Your task to perform on an android device: Add "duracell triple a" to the cart on ebay Image 0: 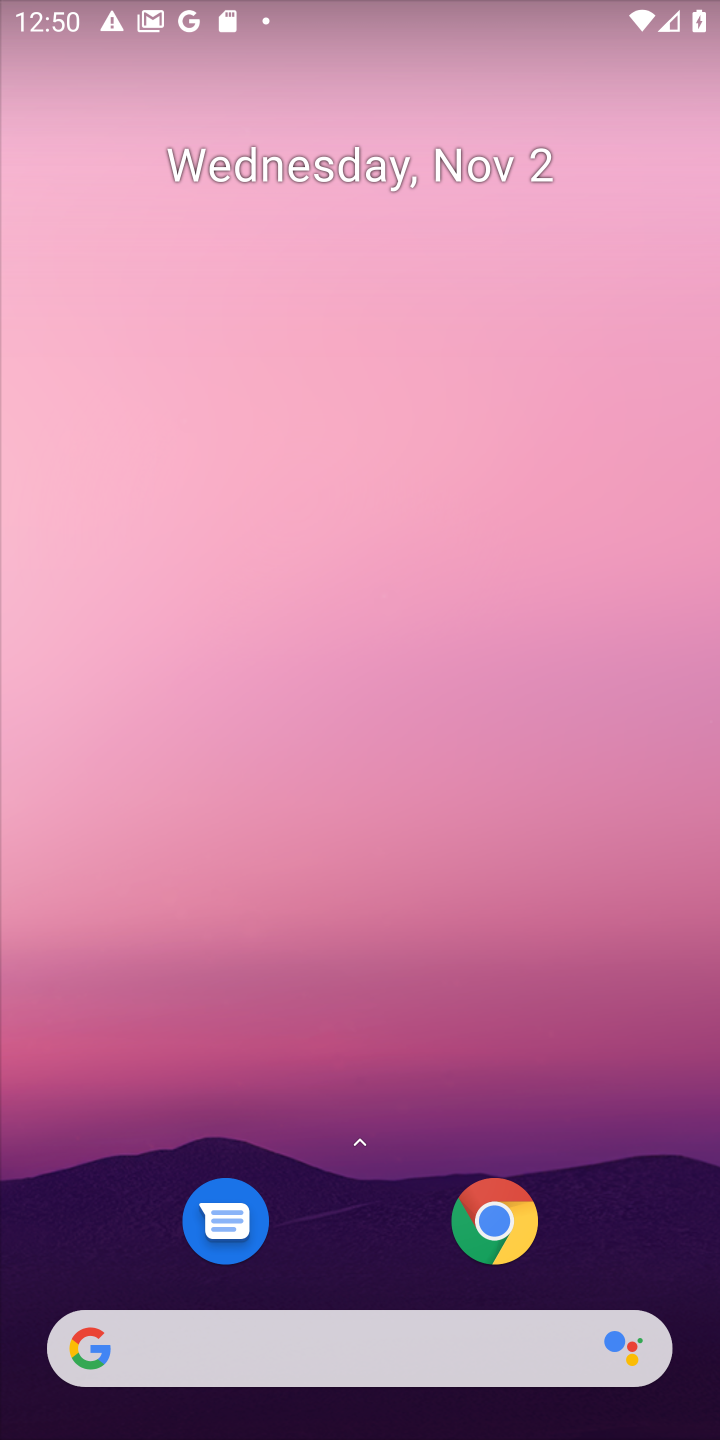
Step 0: click (500, 1243)
Your task to perform on an android device: Add "duracell triple a" to the cart on ebay Image 1: 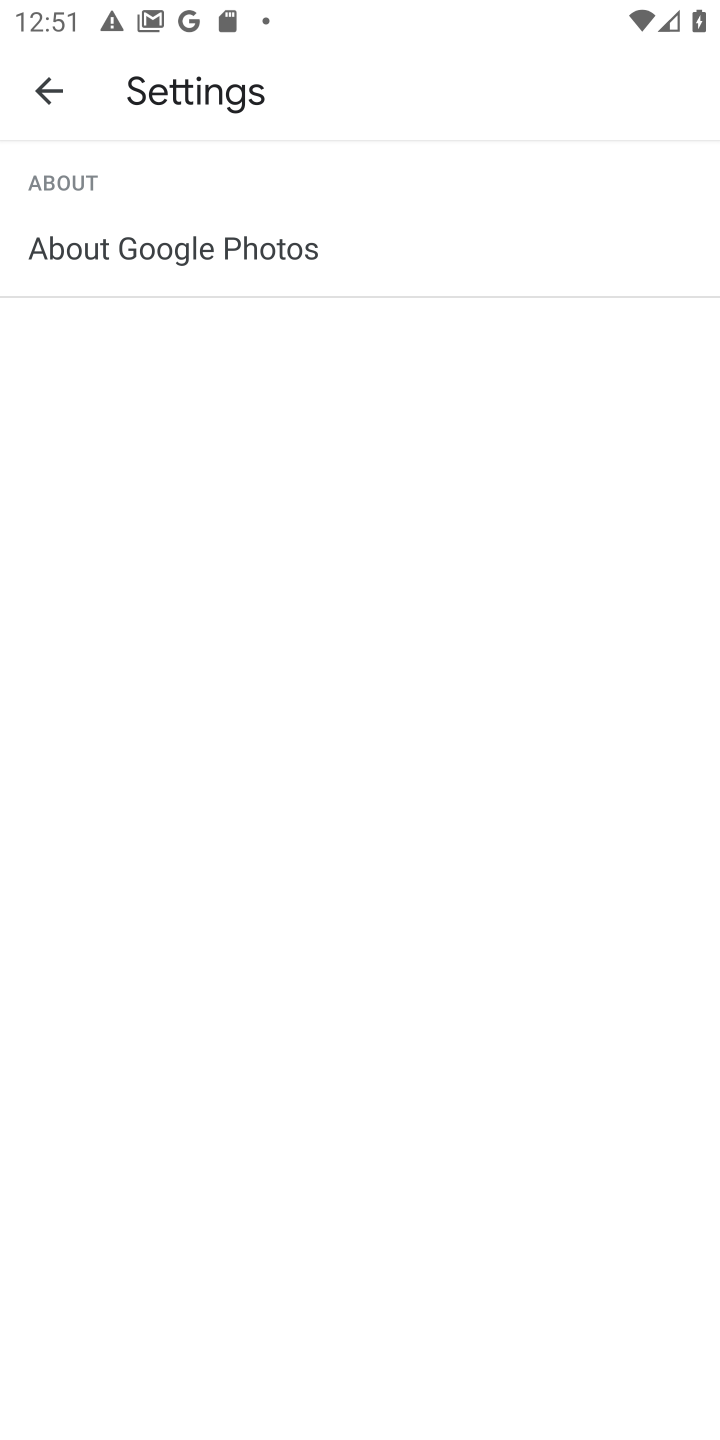
Step 1: press home button
Your task to perform on an android device: Add "duracell triple a" to the cart on ebay Image 2: 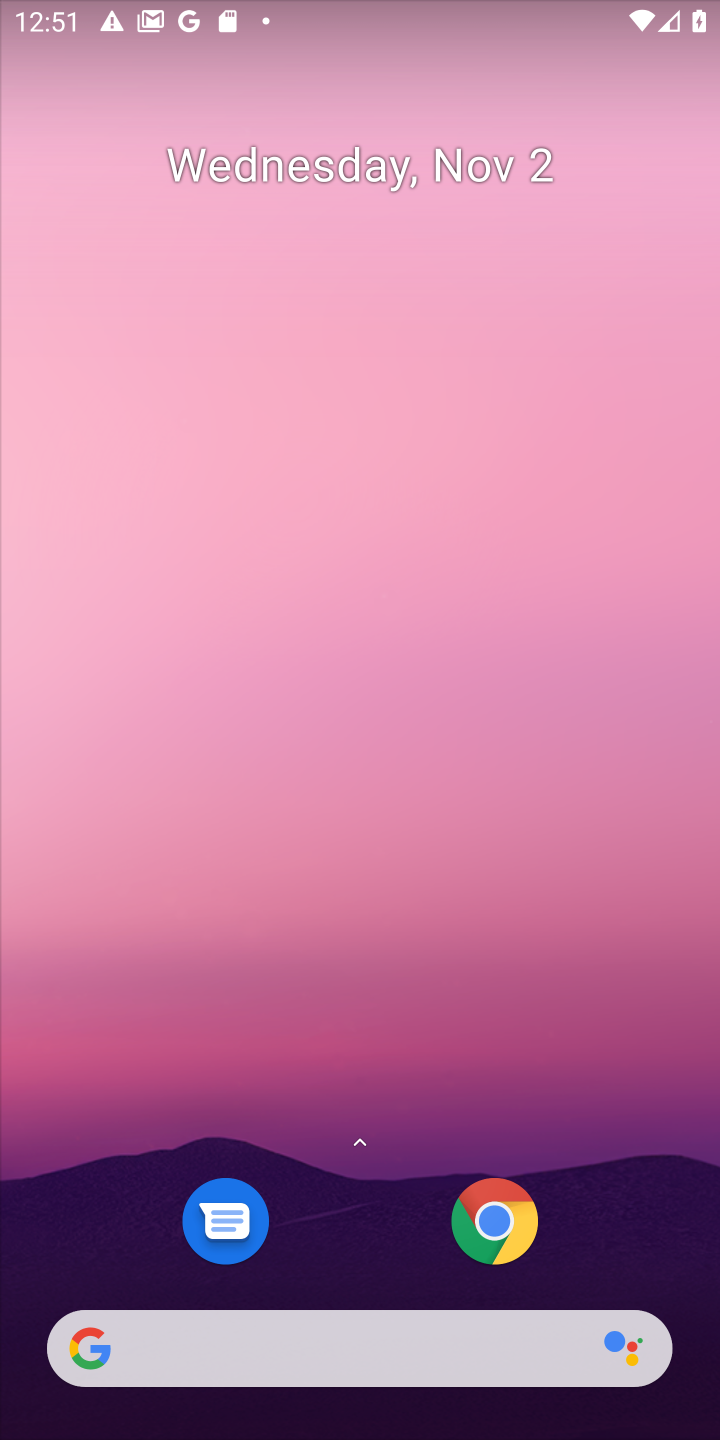
Step 2: click (464, 1333)
Your task to perform on an android device: Add "duracell triple a" to the cart on ebay Image 3: 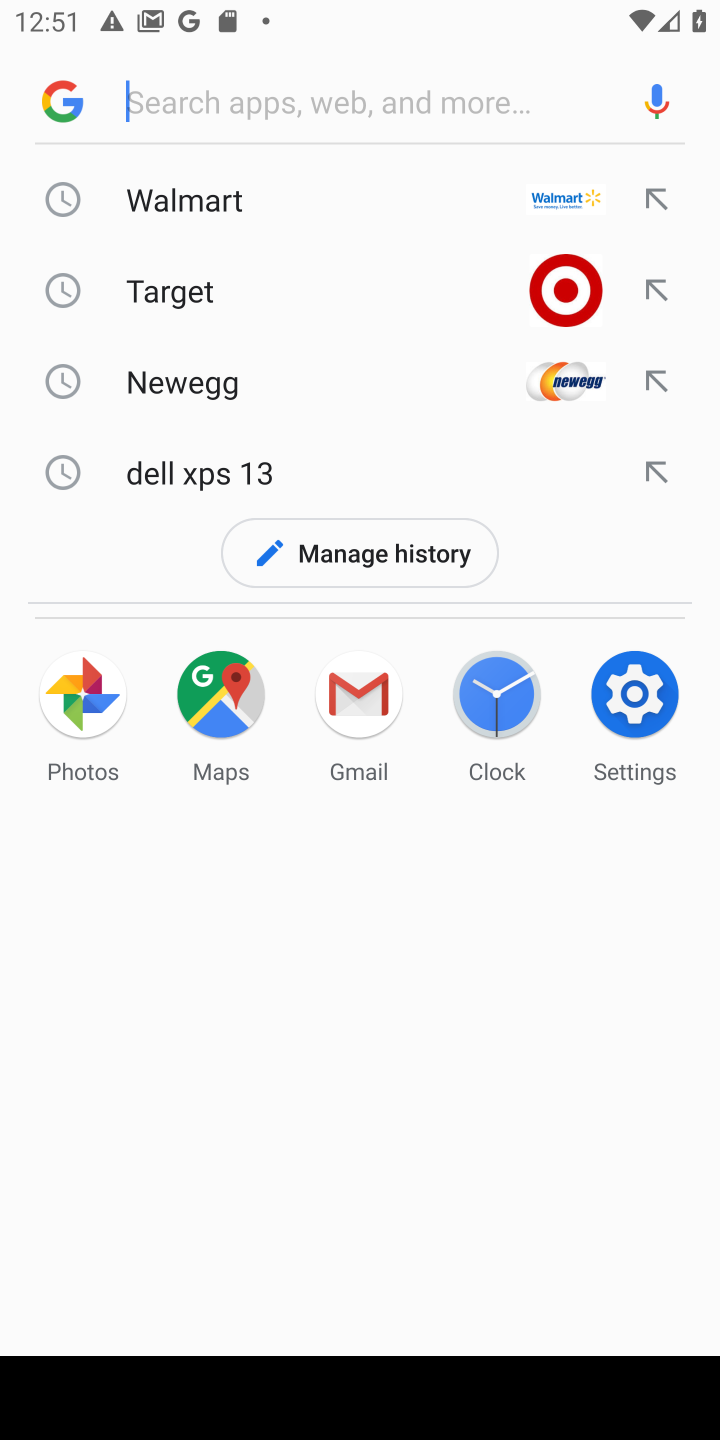
Step 3: type "ebay.com"
Your task to perform on an android device: Add "duracell triple a" to the cart on ebay Image 4: 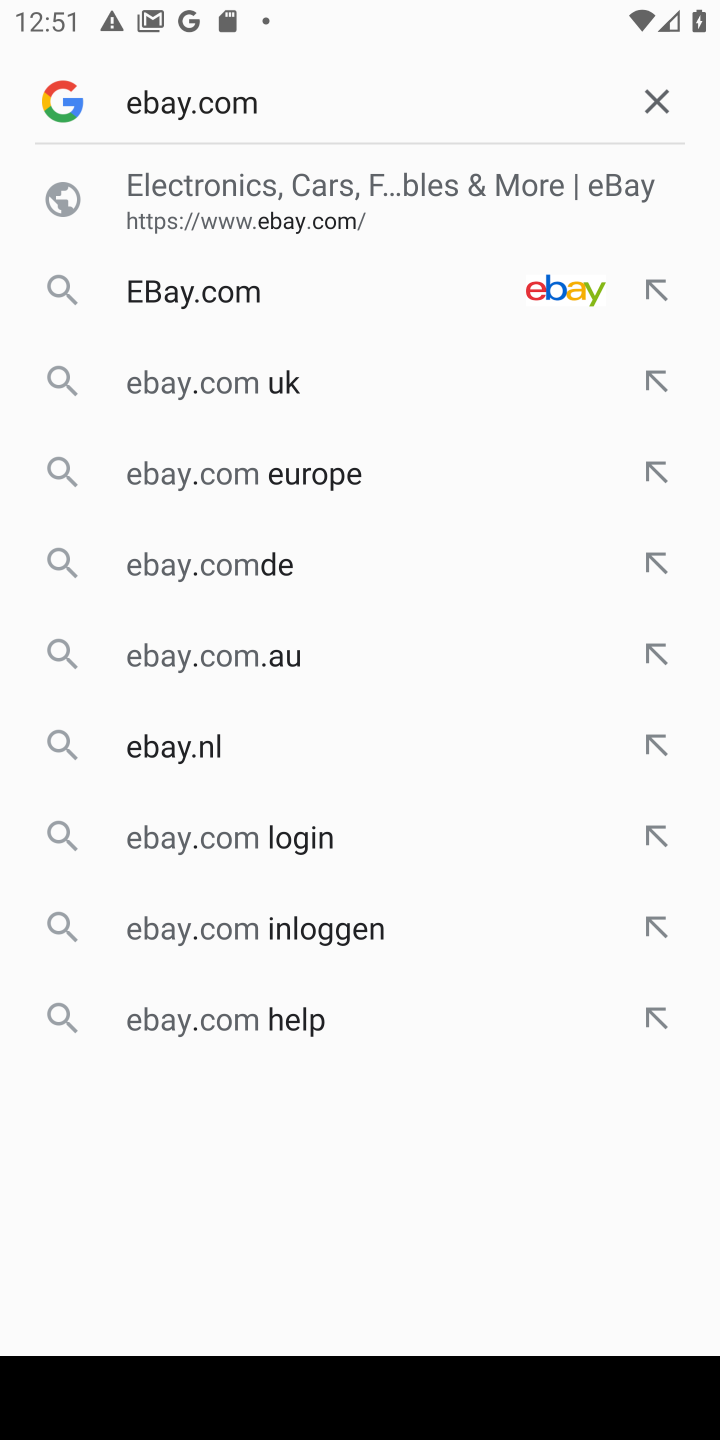
Step 4: click (350, 229)
Your task to perform on an android device: Add "duracell triple a" to the cart on ebay Image 5: 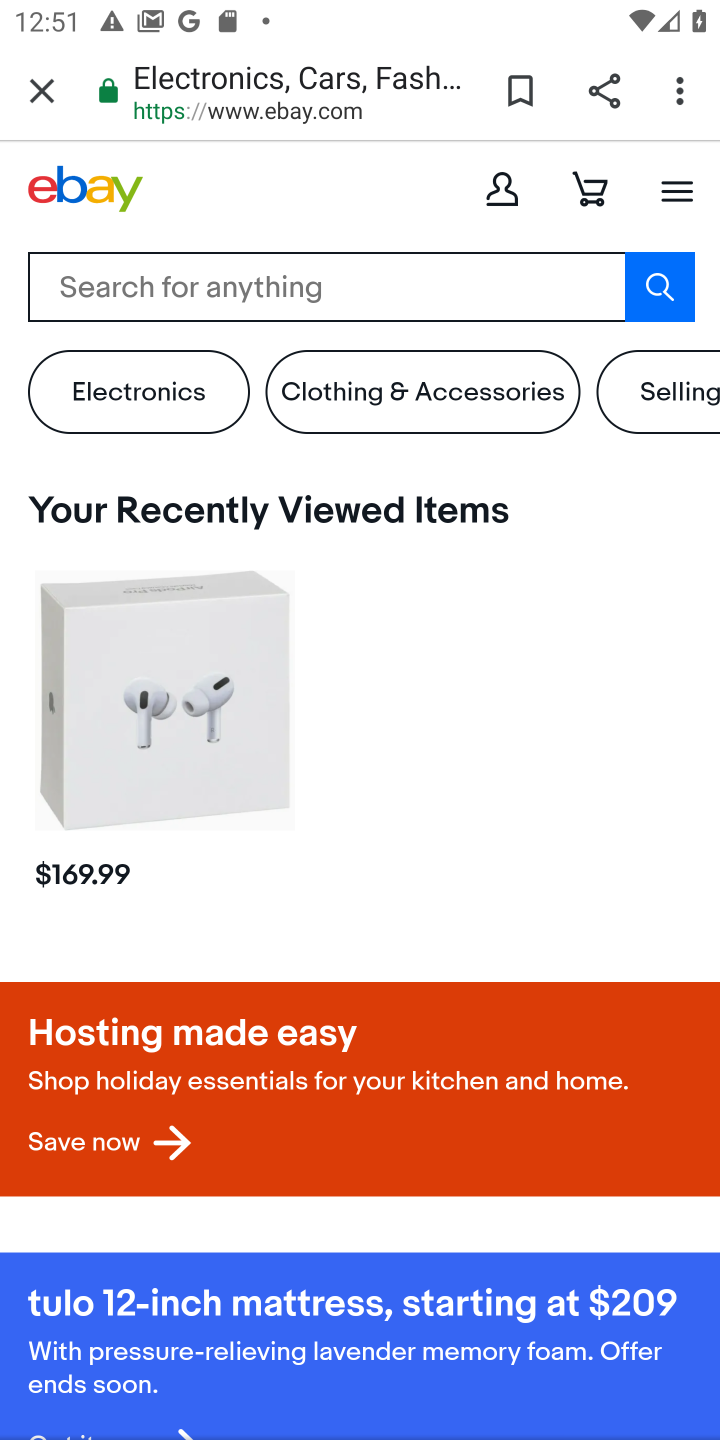
Step 5: click (355, 291)
Your task to perform on an android device: Add "duracell triple a" to the cart on ebay Image 6: 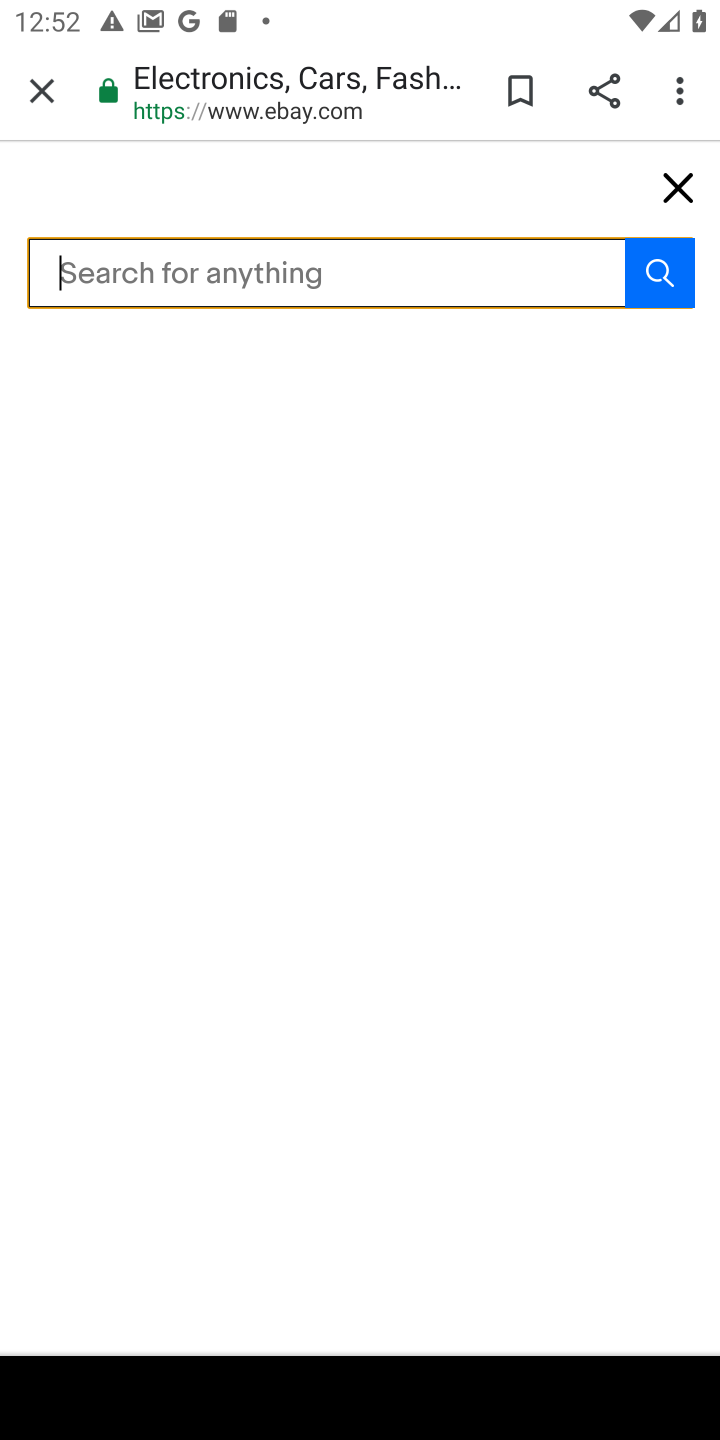
Step 6: type "duracell triple a"
Your task to perform on an android device: Add "duracell triple a" to the cart on ebay Image 7: 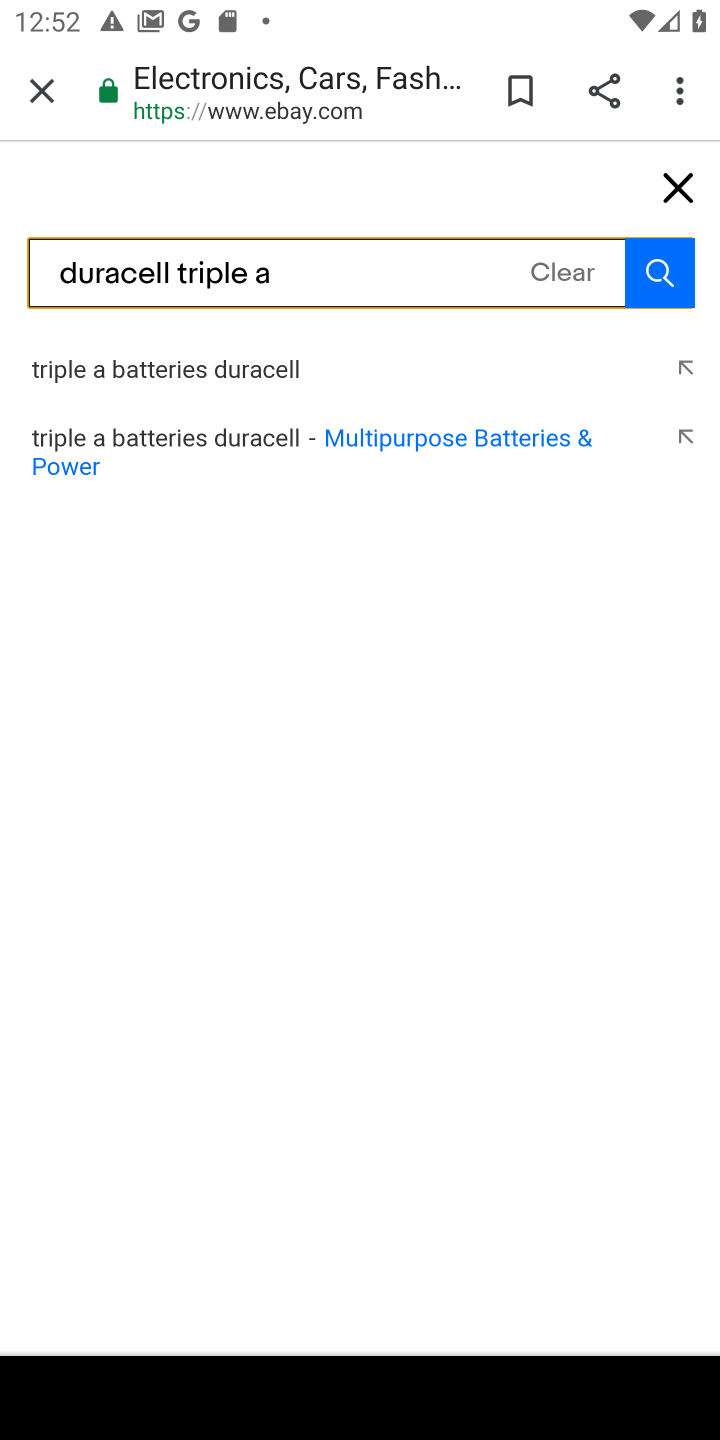
Step 7: click (657, 288)
Your task to perform on an android device: Add "duracell triple a" to the cart on ebay Image 8: 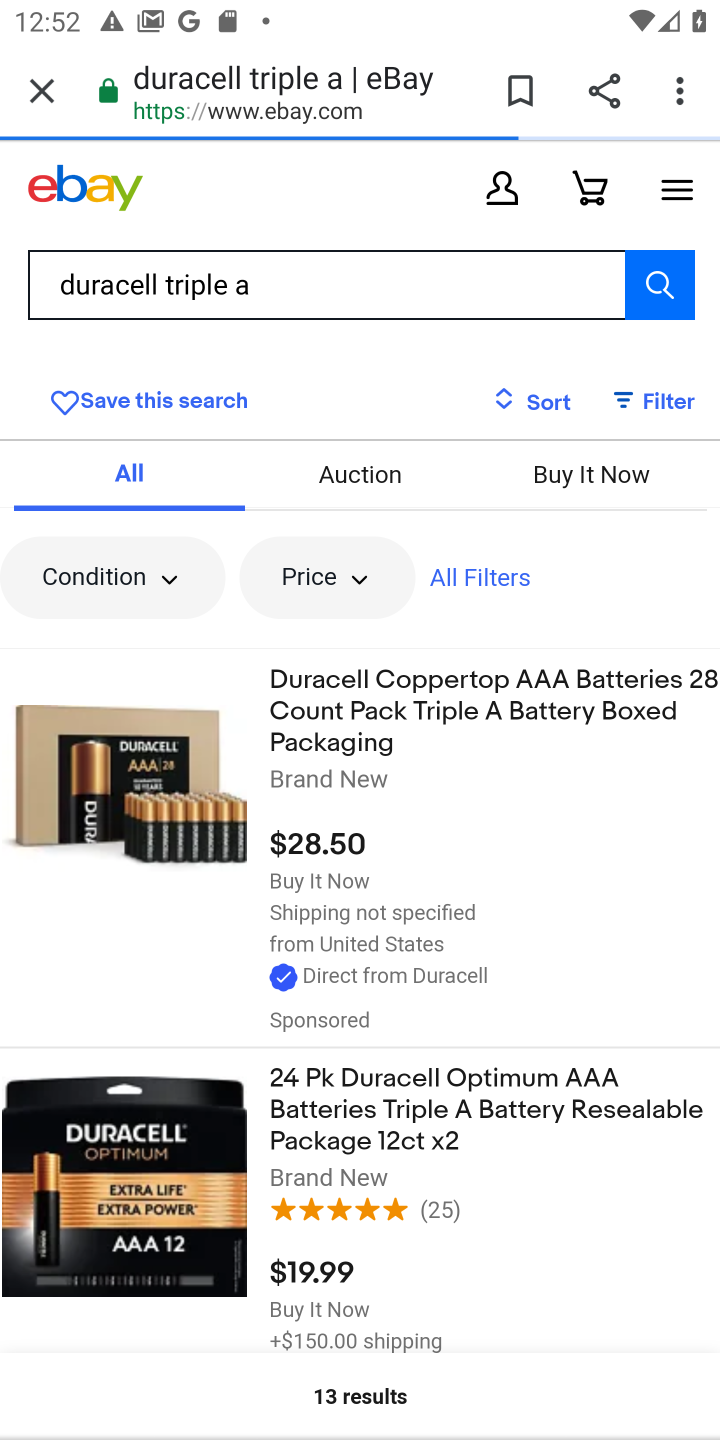
Step 8: click (344, 755)
Your task to perform on an android device: Add "duracell triple a" to the cart on ebay Image 9: 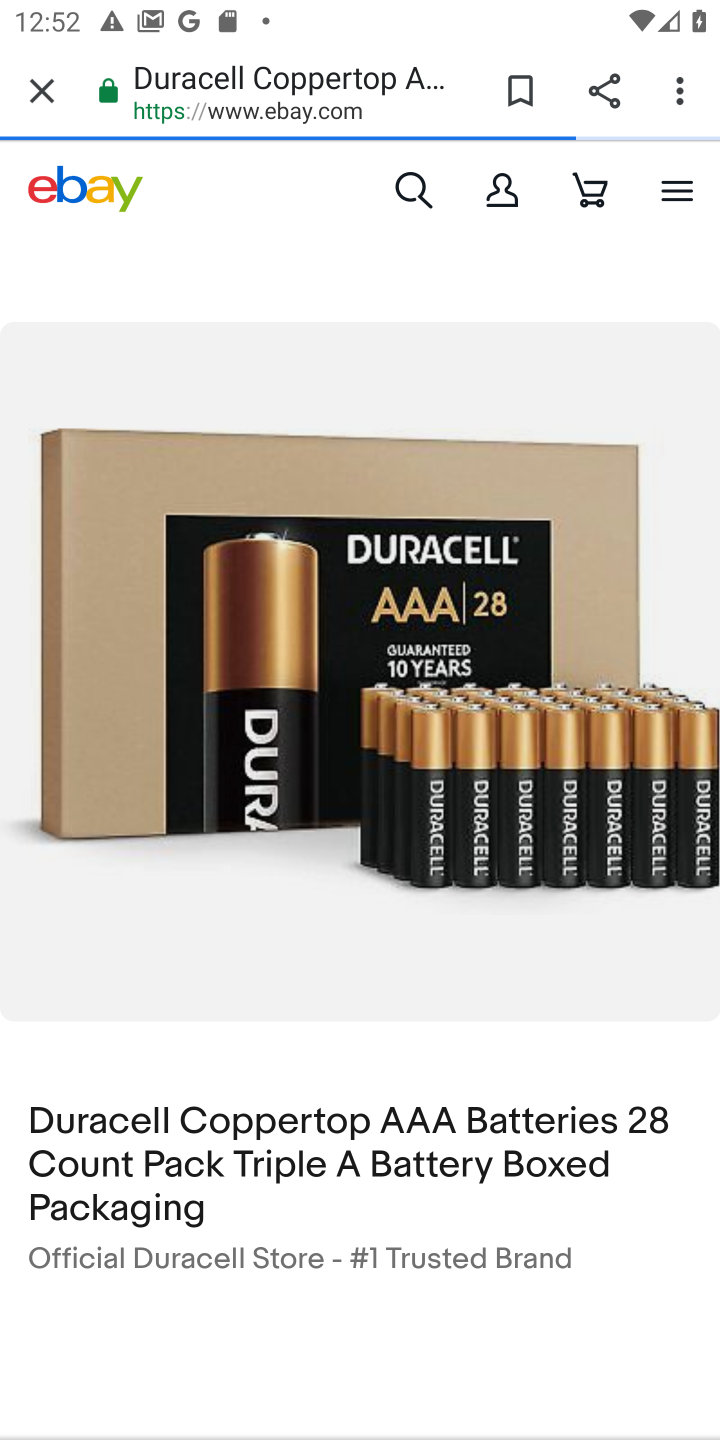
Step 9: drag from (290, 1069) to (228, 145)
Your task to perform on an android device: Add "duracell triple a" to the cart on ebay Image 10: 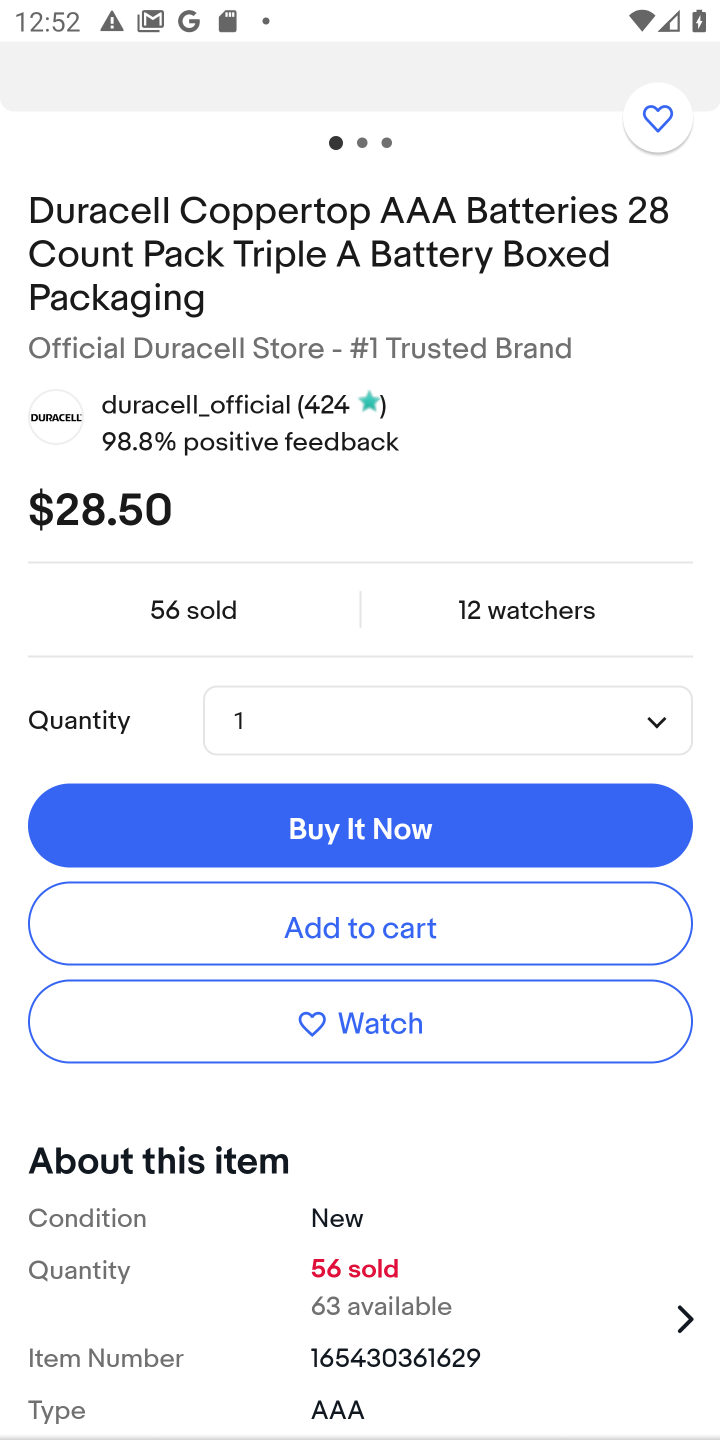
Step 10: click (304, 927)
Your task to perform on an android device: Add "duracell triple a" to the cart on ebay Image 11: 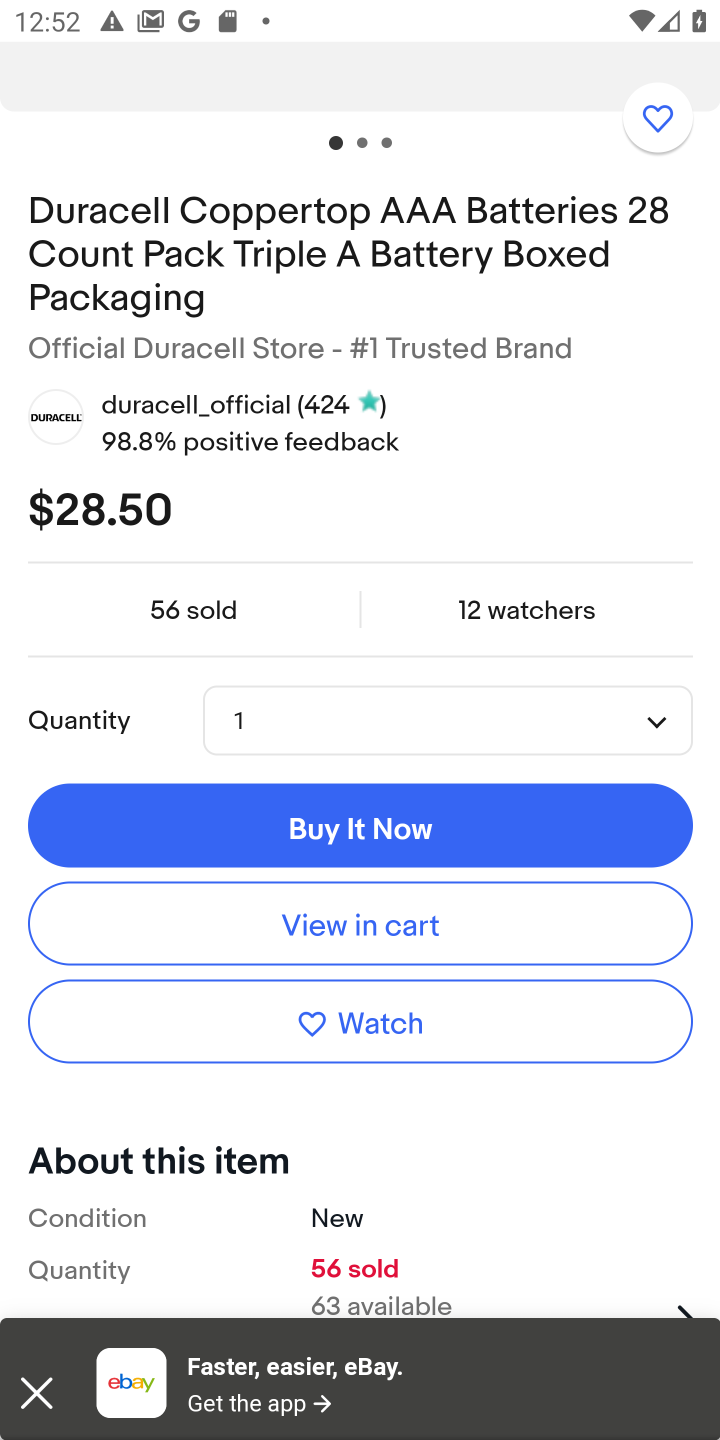
Step 11: task complete